Your task to perform on an android device: choose inbox layout in the gmail app Image 0: 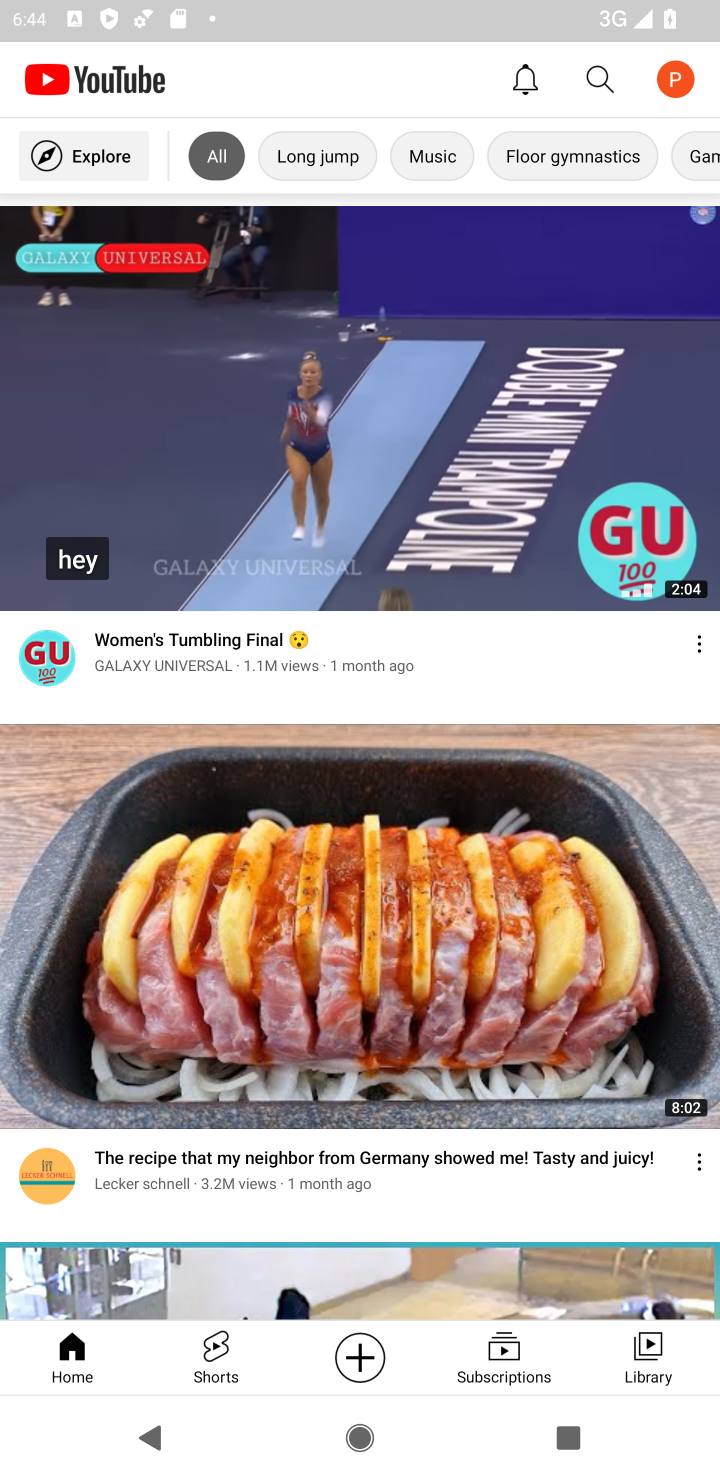
Step 0: press home button
Your task to perform on an android device: choose inbox layout in the gmail app Image 1: 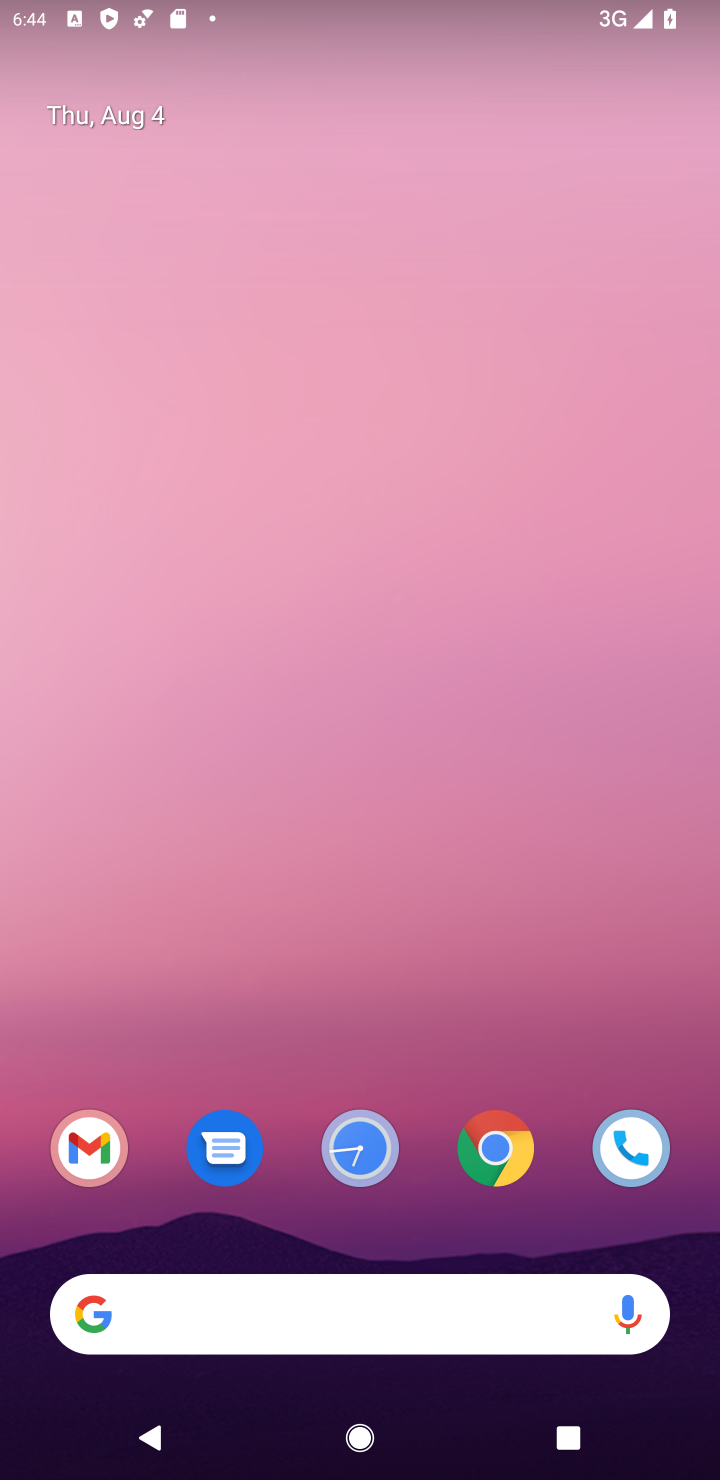
Step 1: click (84, 1145)
Your task to perform on an android device: choose inbox layout in the gmail app Image 2: 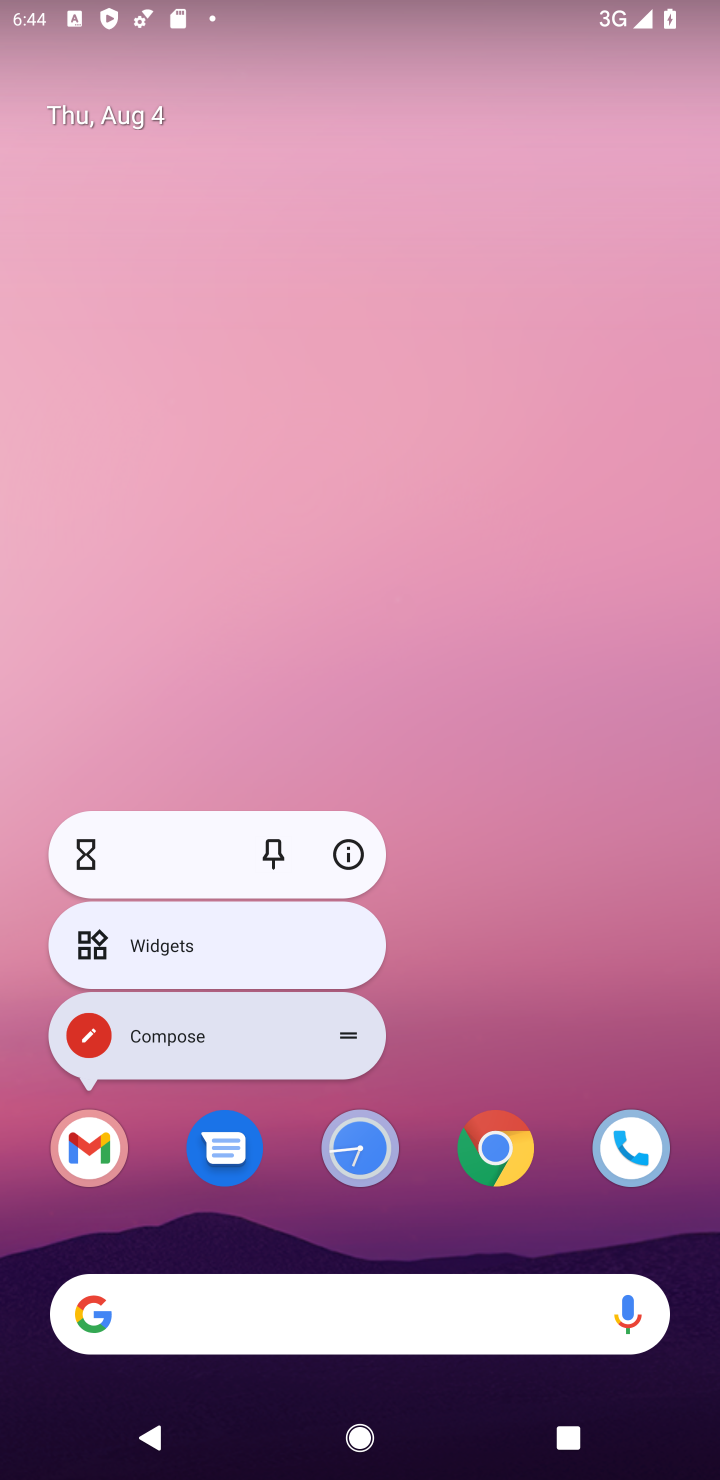
Step 2: click (98, 1145)
Your task to perform on an android device: choose inbox layout in the gmail app Image 3: 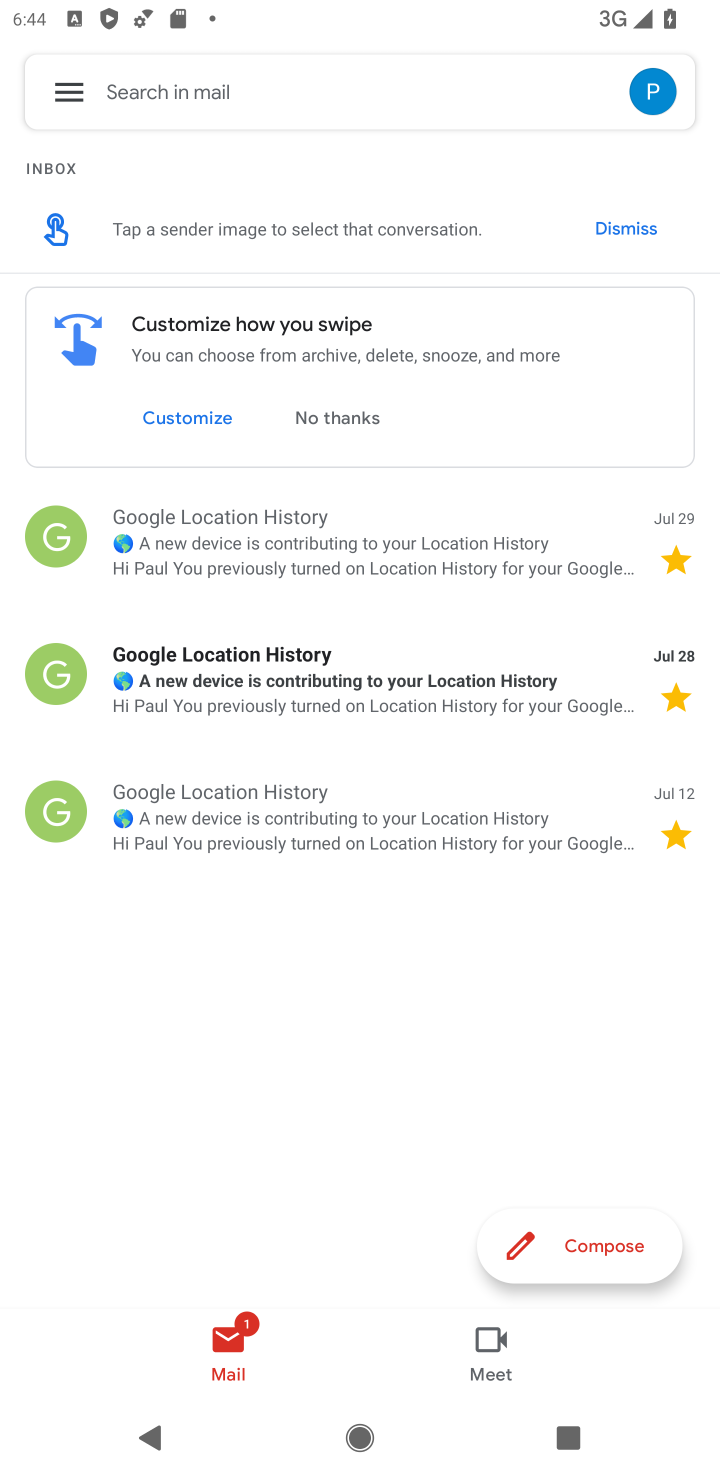
Step 3: click (67, 88)
Your task to perform on an android device: choose inbox layout in the gmail app Image 4: 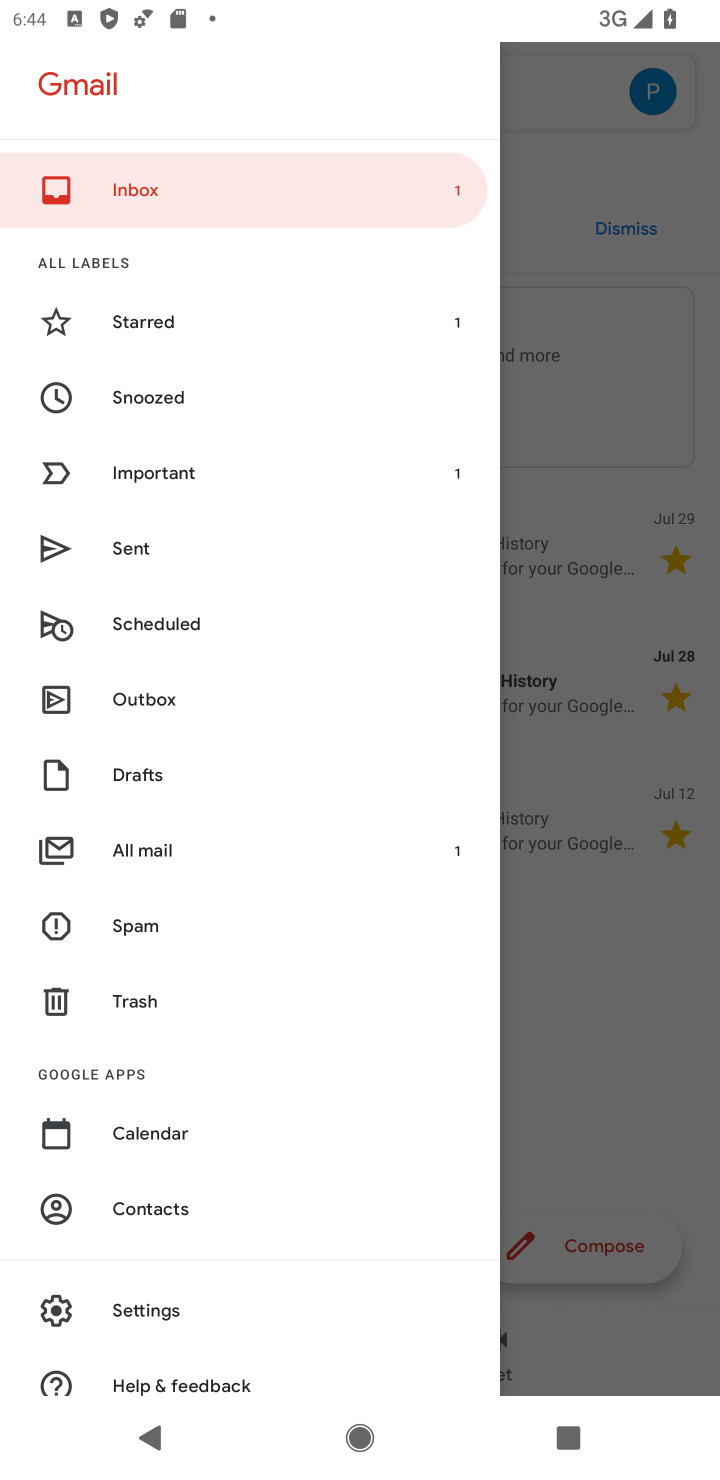
Step 4: click (138, 1301)
Your task to perform on an android device: choose inbox layout in the gmail app Image 5: 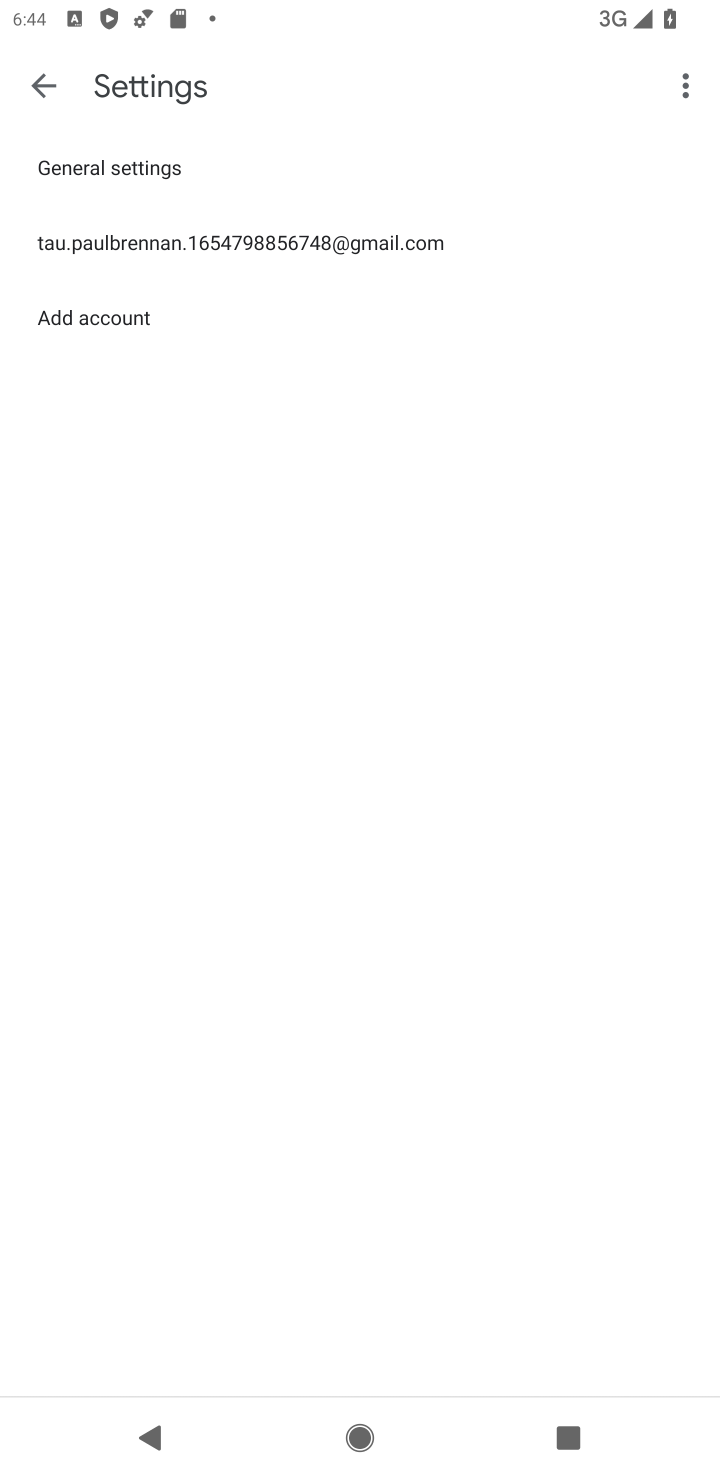
Step 5: click (219, 237)
Your task to perform on an android device: choose inbox layout in the gmail app Image 6: 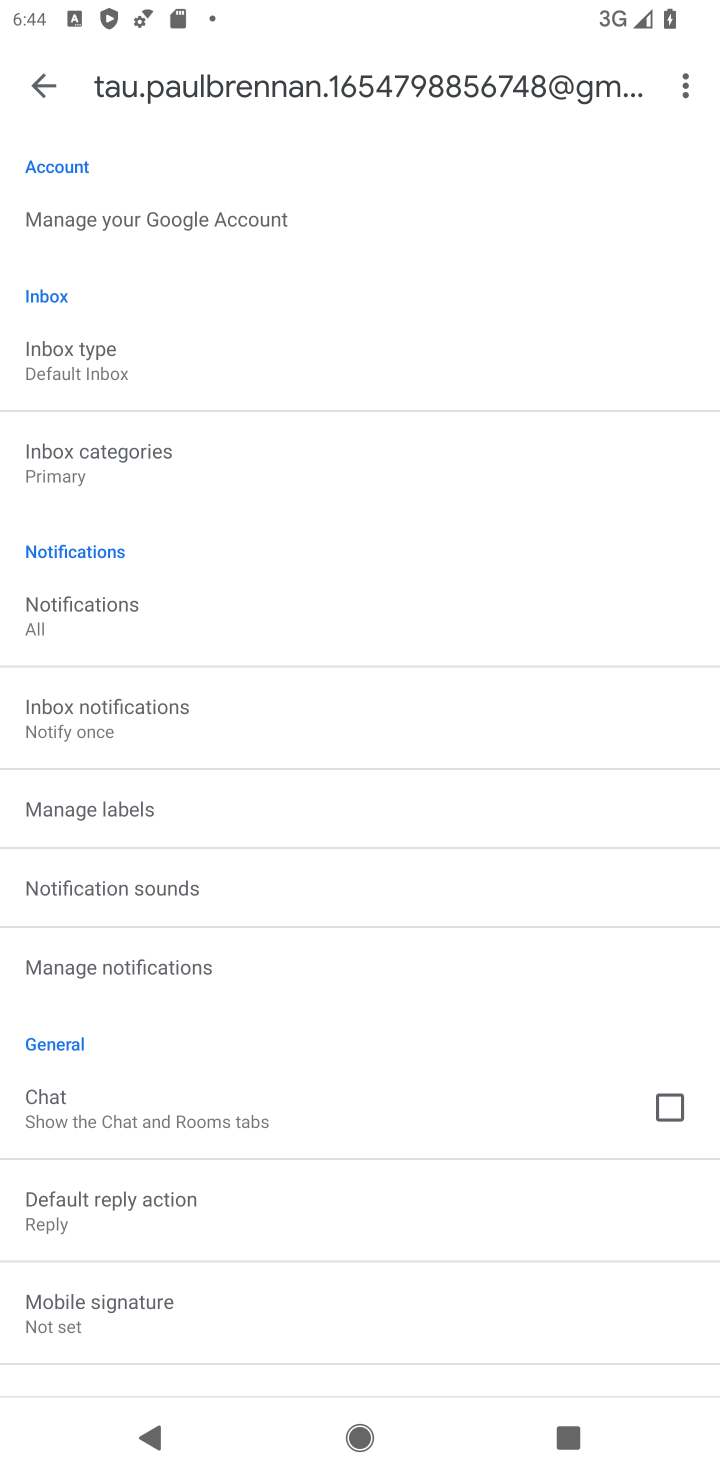
Step 6: click (80, 342)
Your task to perform on an android device: choose inbox layout in the gmail app Image 7: 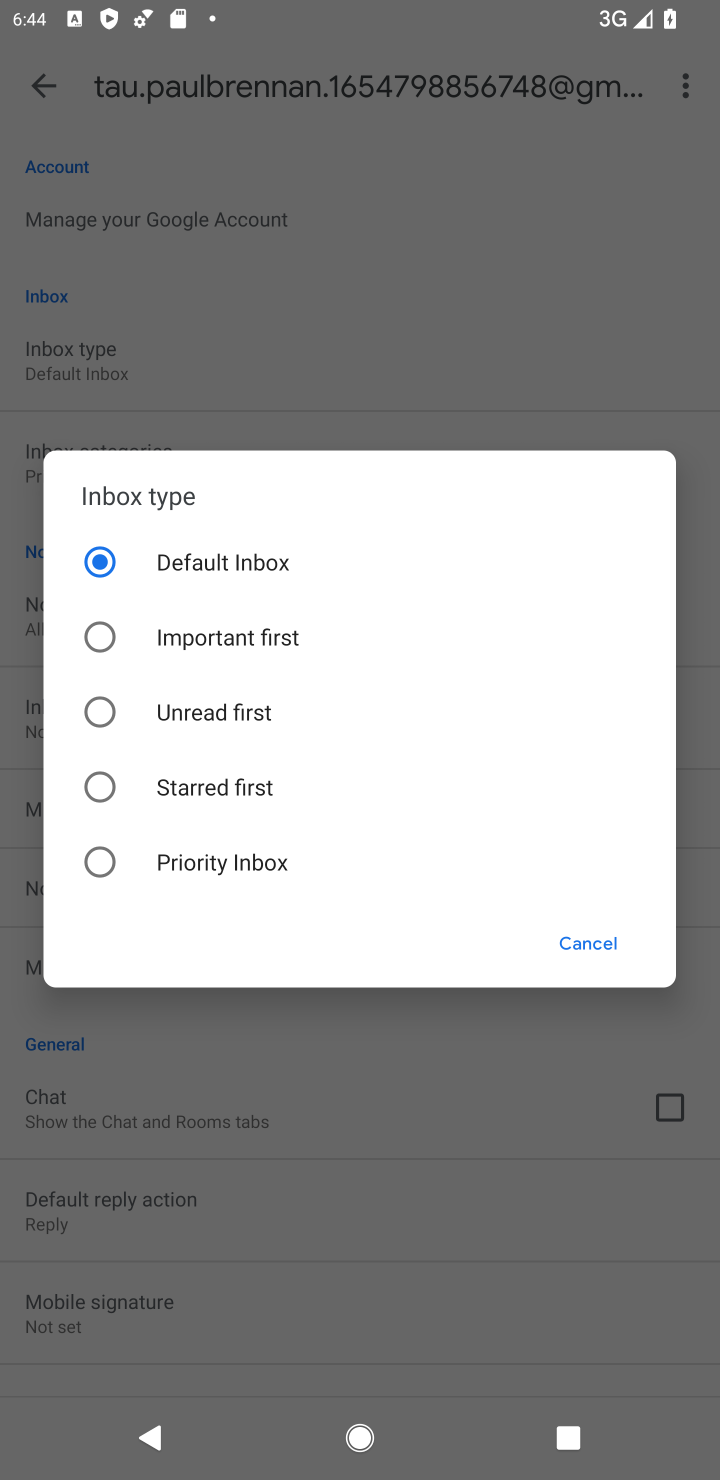
Step 7: click (94, 856)
Your task to perform on an android device: choose inbox layout in the gmail app Image 8: 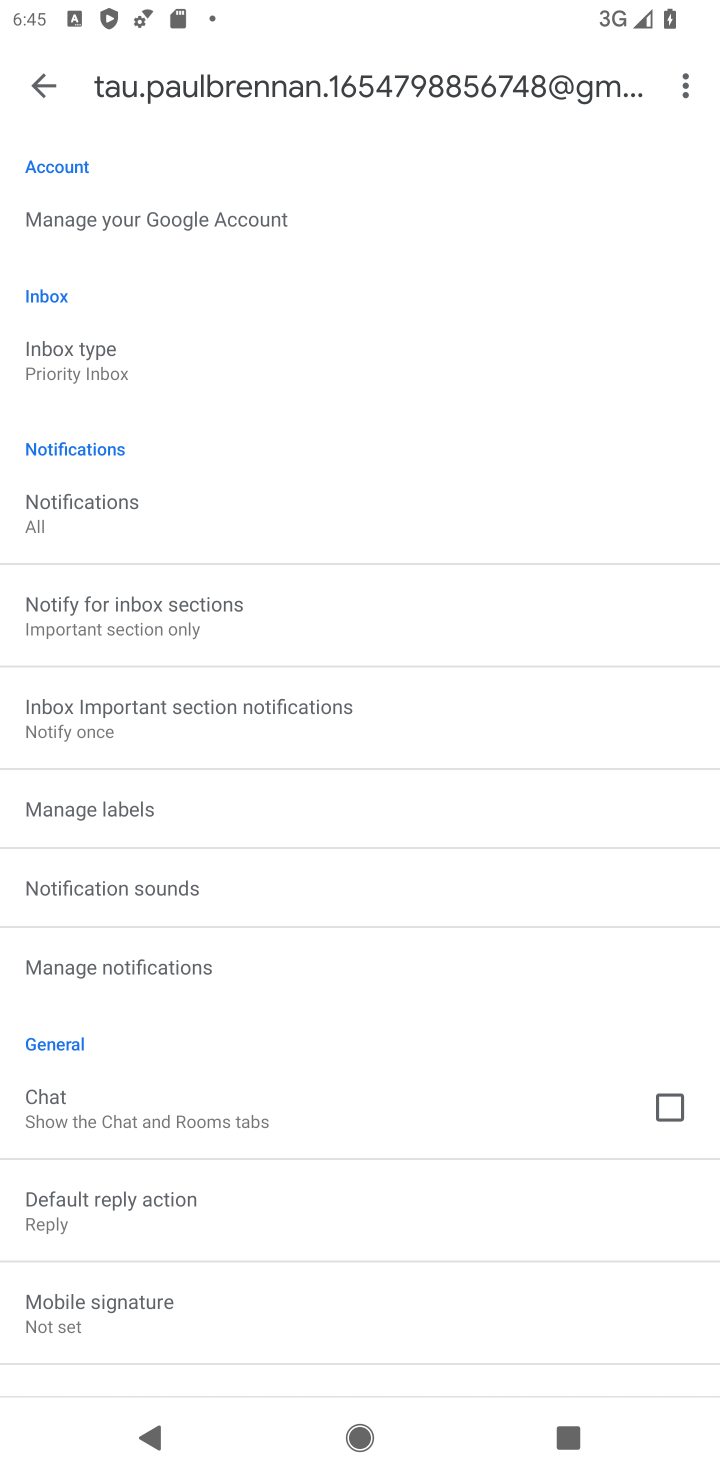
Step 8: task complete